Your task to perform on an android device: star an email in the gmail app Image 0: 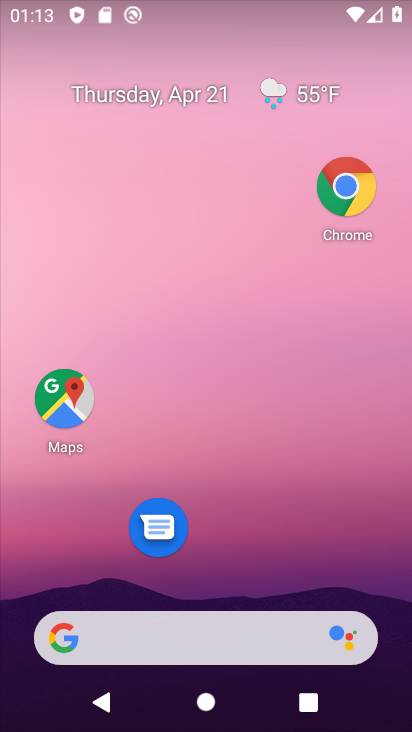
Step 0: drag from (212, 597) to (190, 5)
Your task to perform on an android device: star an email in the gmail app Image 1: 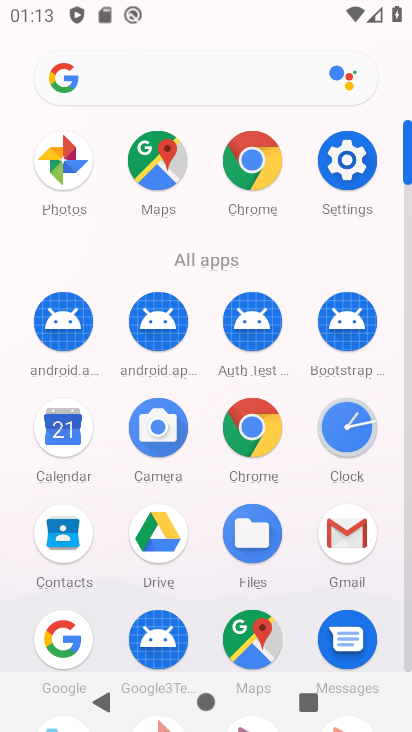
Step 1: click (342, 529)
Your task to perform on an android device: star an email in the gmail app Image 2: 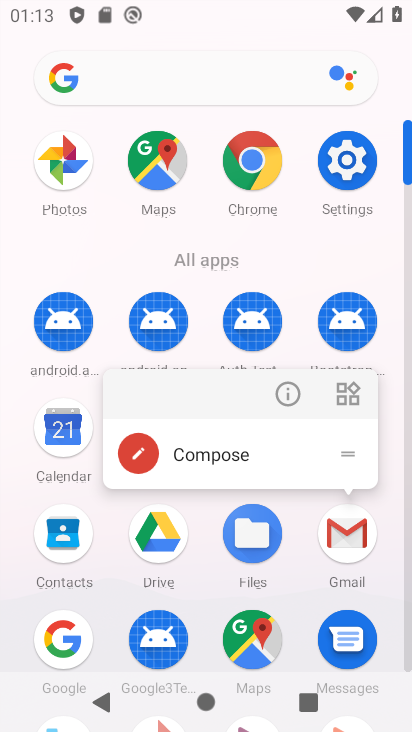
Step 2: click (287, 385)
Your task to perform on an android device: star an email in the gmail app Image 3: 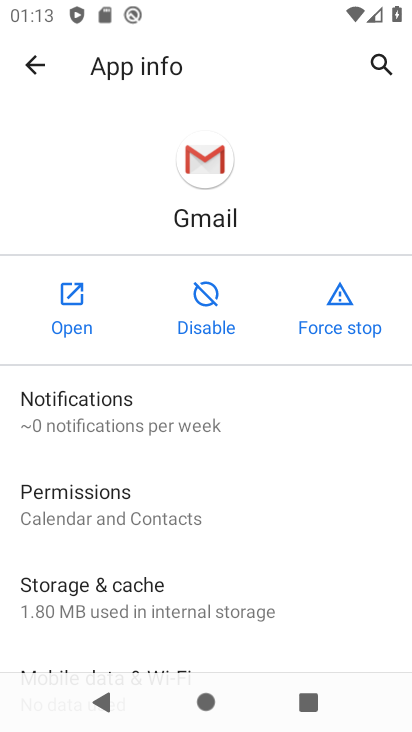
Step 3: click (85, 297)
Your task to perform on an android device: star an email in the gmail app Image 4: 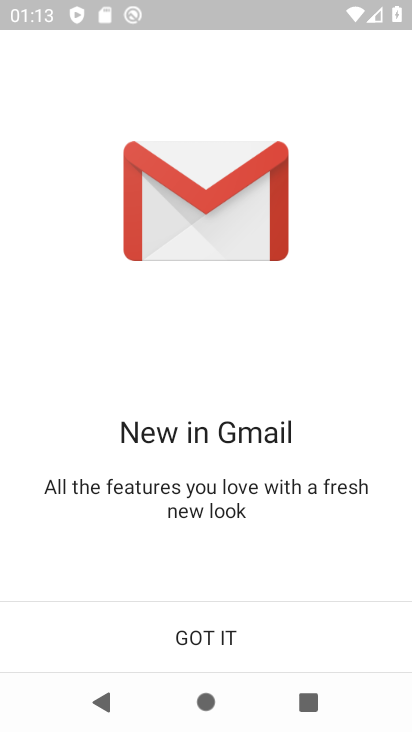
Step 4: click (223, 653)
Your task to perform on an android device: star an email in the gmail app Image 5: 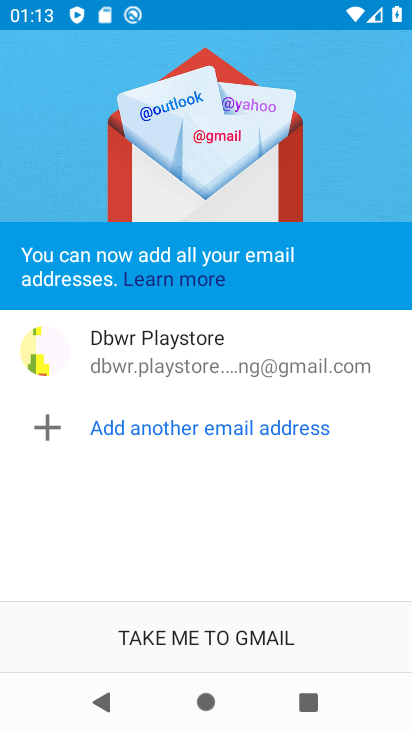
Step 5: click (226, 637)
Your task to perform on an android device: star an email in the gmail app Image 6: 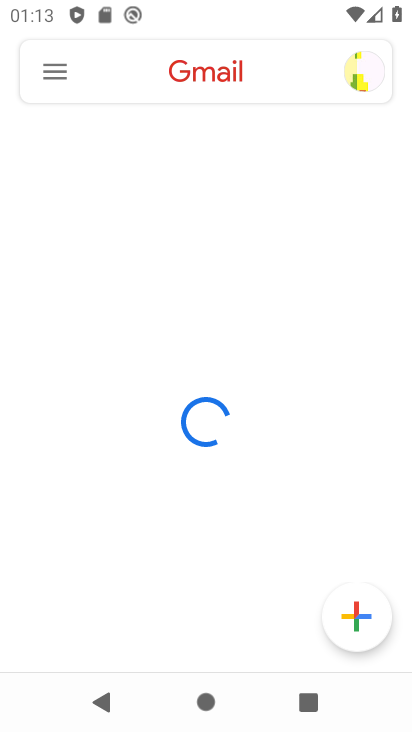
Step 6: drag from (208, 524) to (203, 151)
Your task to perform on an android device: star an email in the gmail app Image 7: 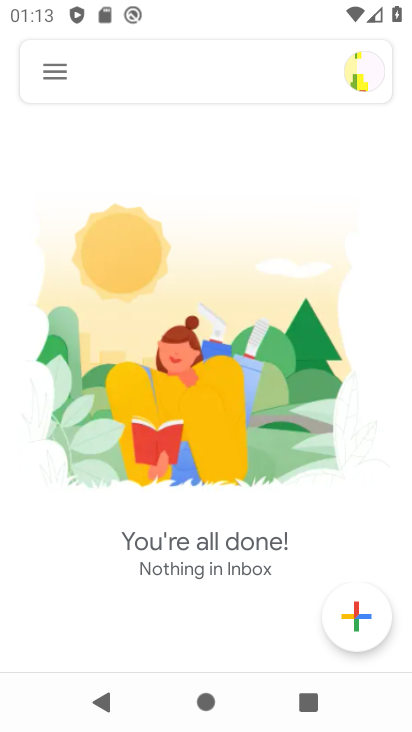
Step 7: click (51, 95)
Your task to perform on an android device: star an email in the gmail app Image 8: 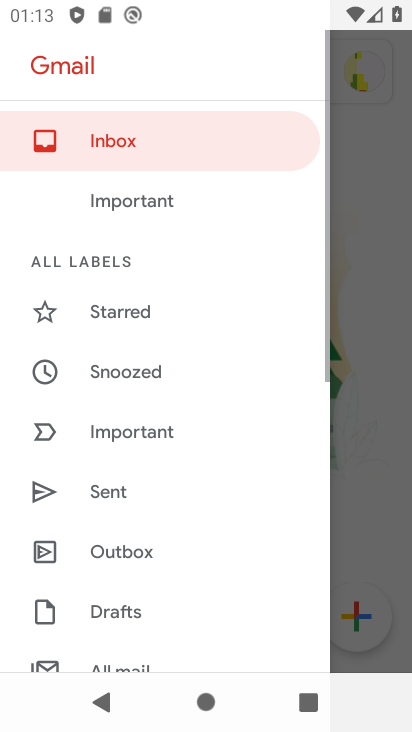
Step 8: task complete